Your task to perform on an android device: turn notification dots on Image 0: 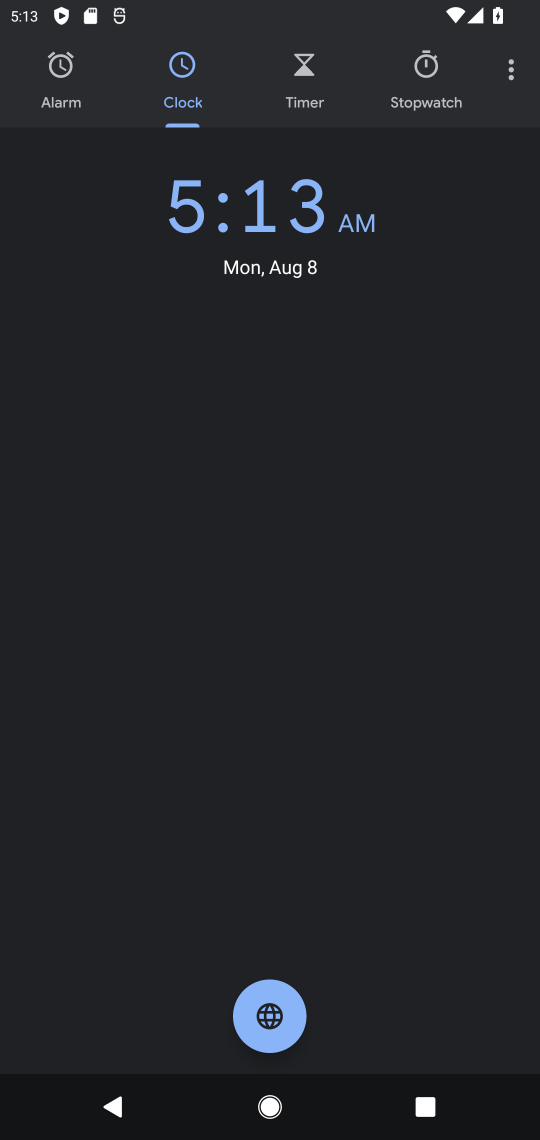
Step 0: press home button
Your task to perform on an android device: turn notification dots on Image 1: 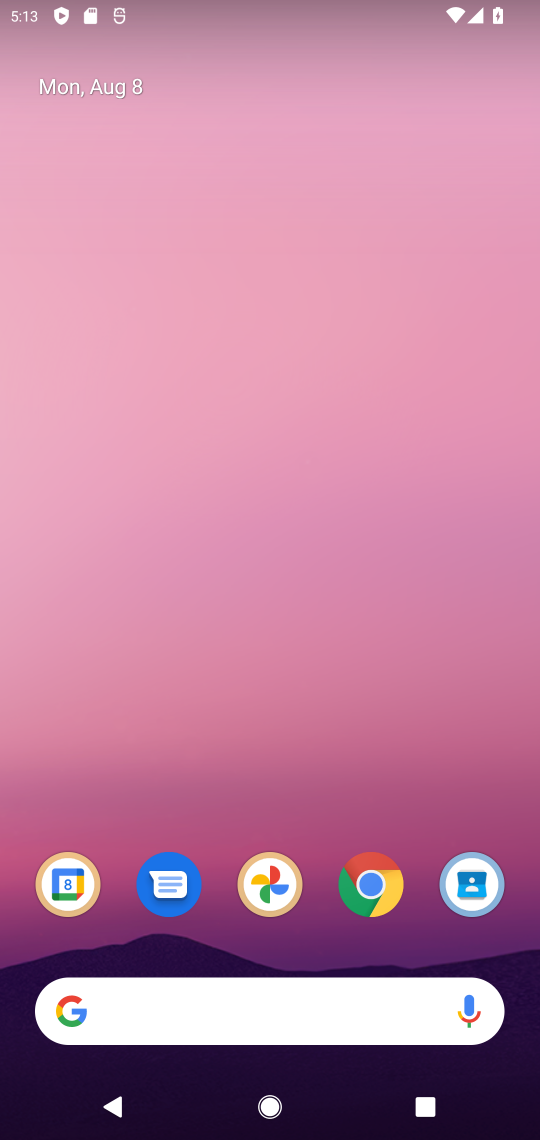
Step 1: drag from (328, 837) to (293, 155)
Your task to perform on an android device: turn notification dots on Image 2: 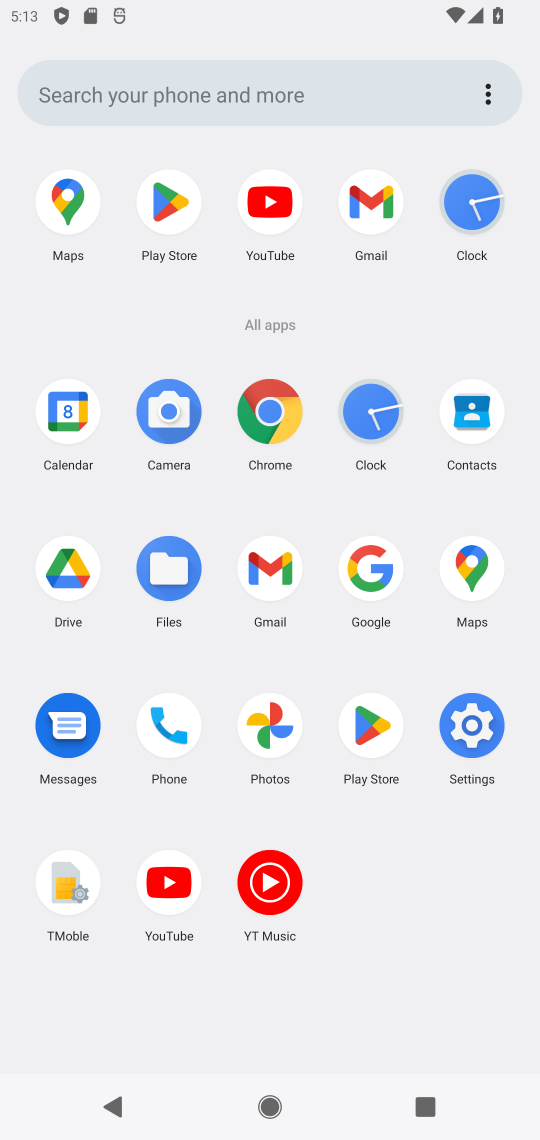
Step 2: click (470, 742)
Your task to perform on an android device: turn notification dots on Image 3: 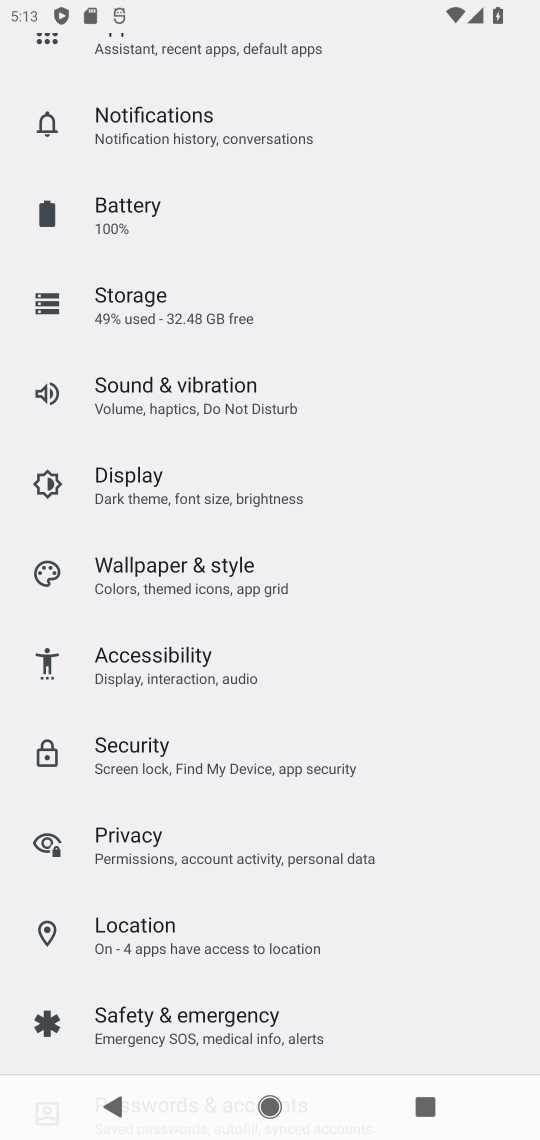
Step 3: click (241, 137)
Your task to perform on an android device: turn notification dots on Image 4: 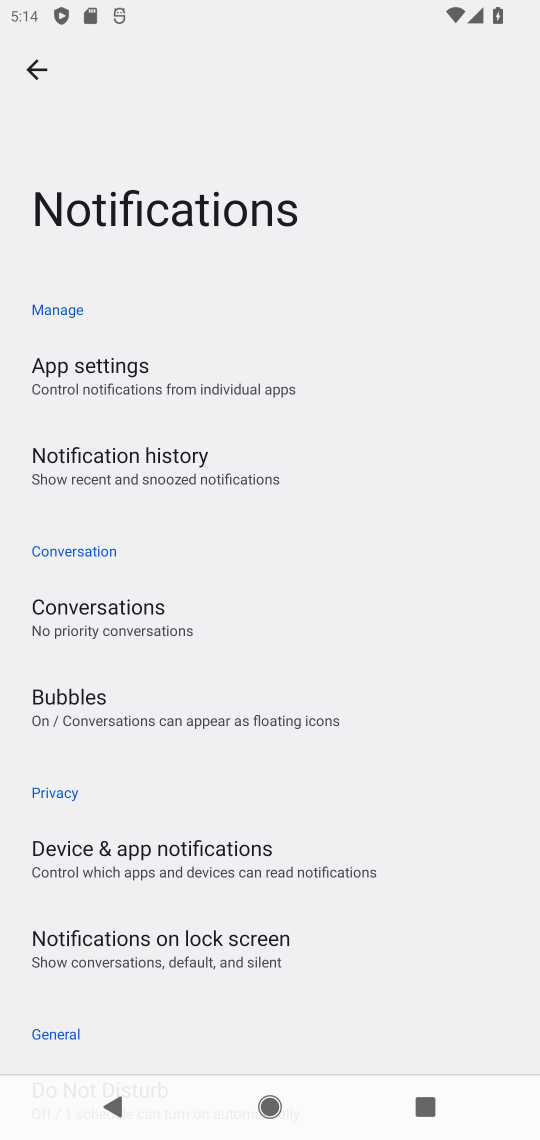
Step 4: drag from (303, 1039) to (237, 238)
Your task to perform on an android device: turn notification dots on Image 5: 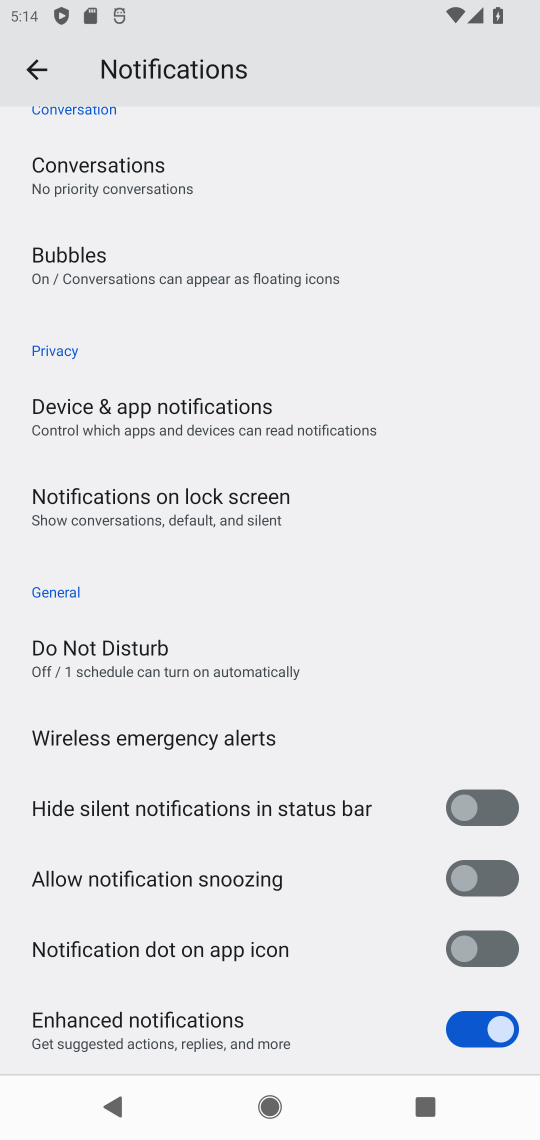
Step 5: click (497, 953)
Your task to perform on an android device: turn notification dots on Image 6: 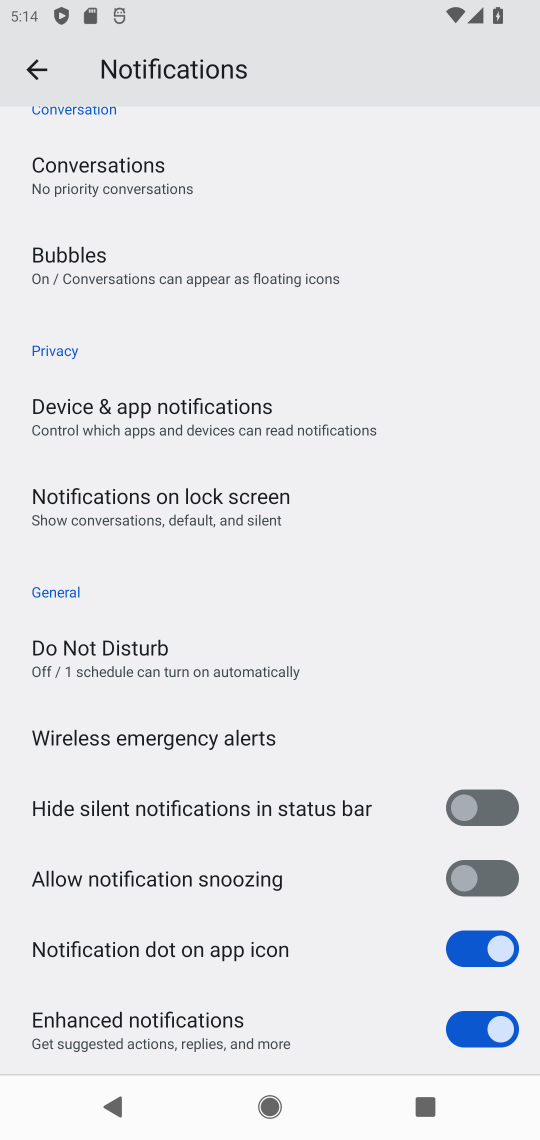
Step 6: task complete